Your task to perform on an android device: toggle notifications settings in the gmail app Image 0: 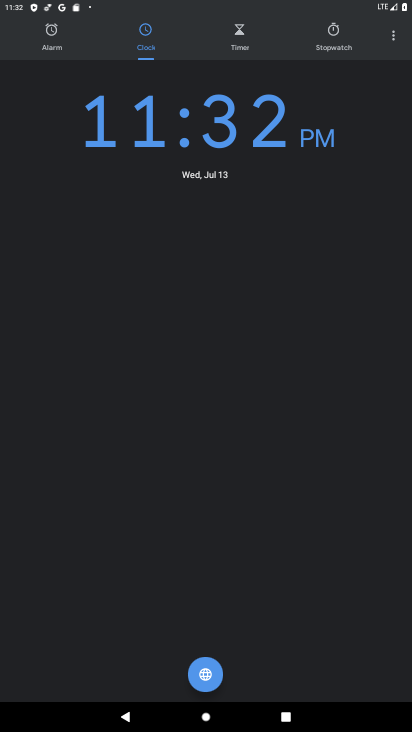
Step 0: press home button
Your task to perform on an android device: toggle notifications settings in the gmail app Image 1: 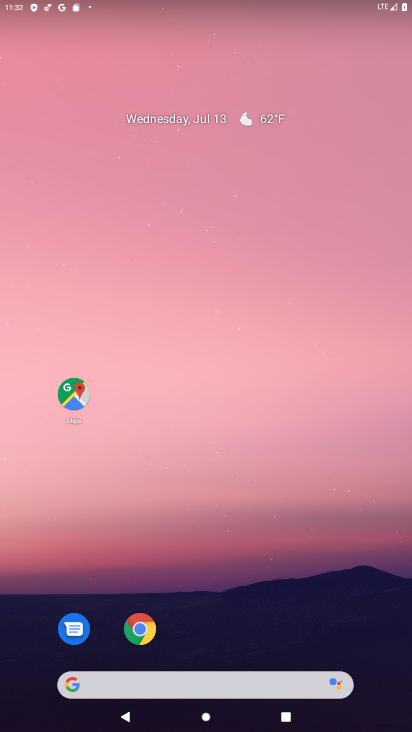
Step 1: drag from (243, 562) to (189, 118)
Your task to perform on an android device: toggle notifications settings in the gmail app Image 2: 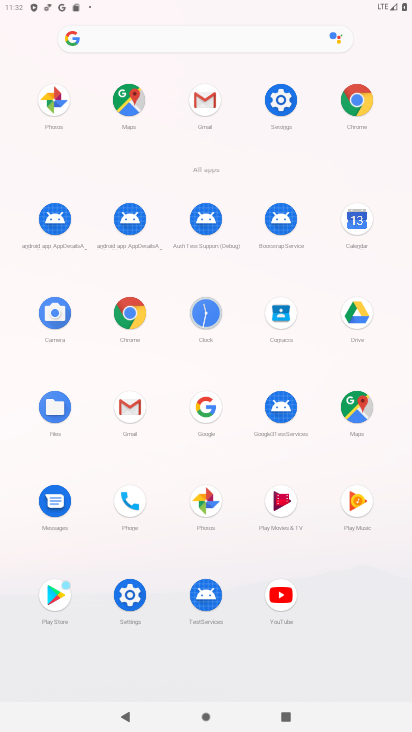
Step 2: click (277, 92)
Your task to perform on an android device: toggle notifications settings in the gmail app Image 3: 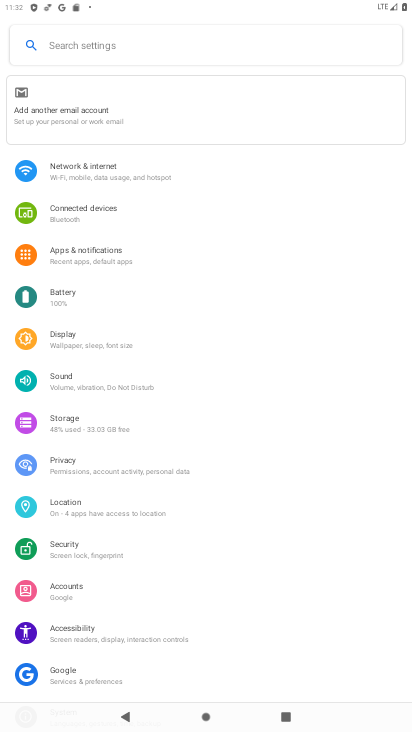
Step 3: click (64, 261)
Your task to perform on an android device: toggle notifications settings in the gmail app Image 4: 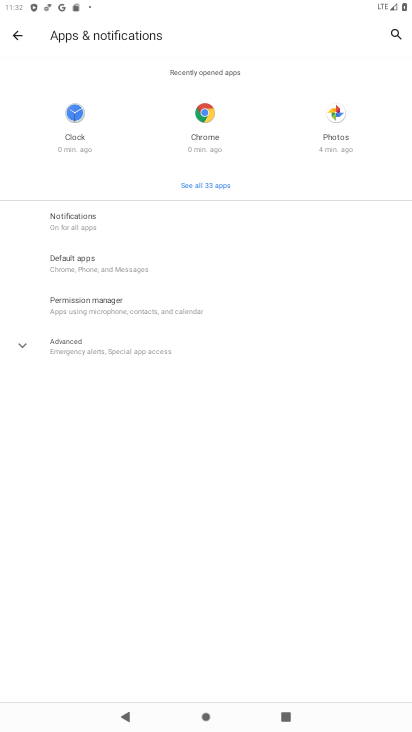
Step 4: click (218, 182)
Your task to perform on an android device: toggle notifications settings in the gmail app Image 5: 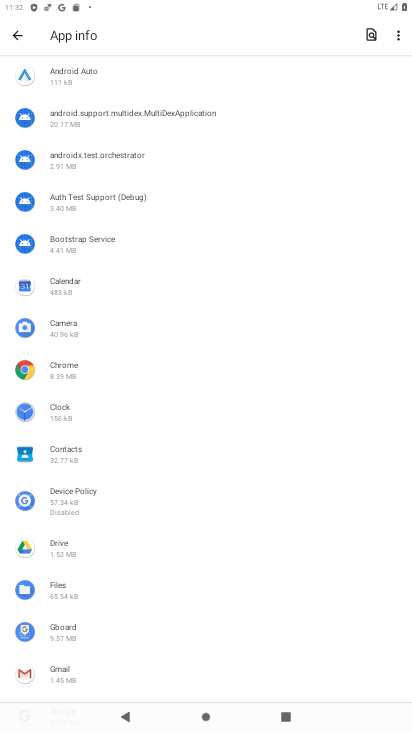
Step 5: click (52, 670)
Your task to perform on an android device: toggle notifications settings in the gmail app Image 6: 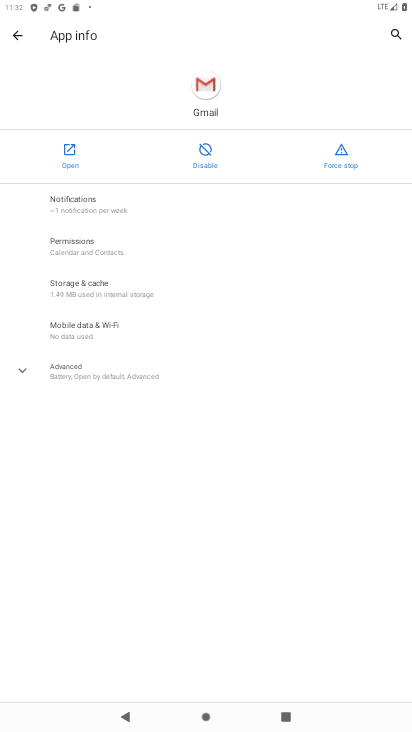
Step 6: click (106, 213)
Your task to perform on an android device: toggle notifications settings in the gmail app Image 7: 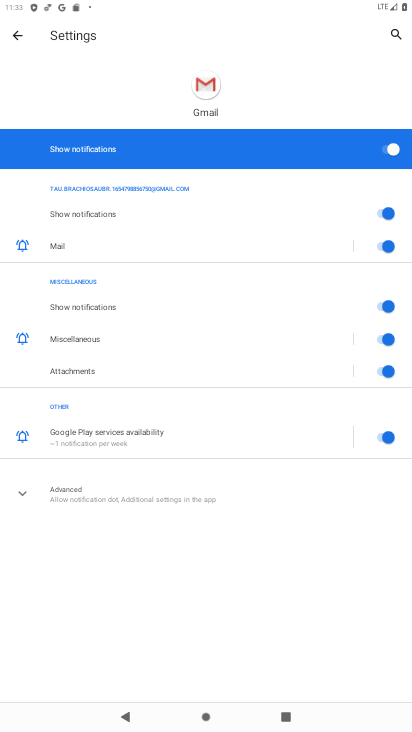
Step 7: click (382, 372)
Your task to perform on an android device: toggle notifications settings in the gmail app Image 8: 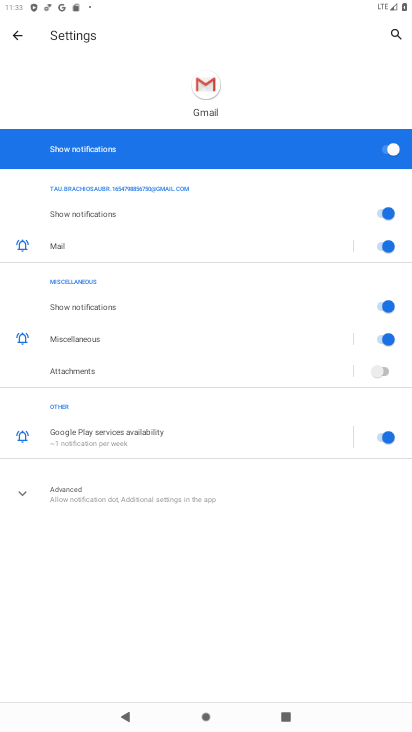
Step 8: click (388, 335)
Your task to perform on an android device: toggle notifications settings in the gmail app Image 9: 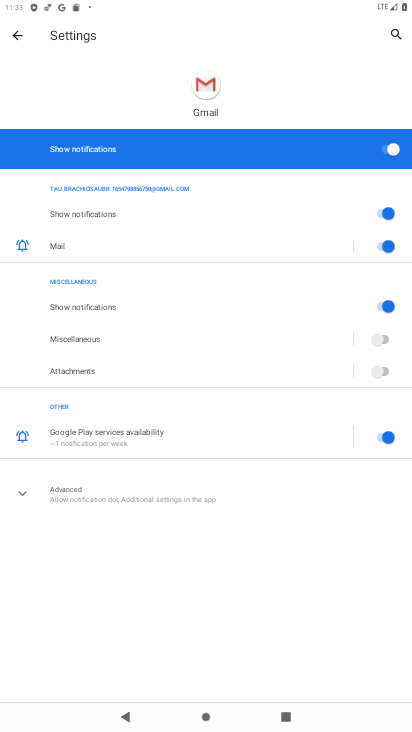
Step 9: task complete